Your task to perform on an android device: Go to CNN.com Image 0: 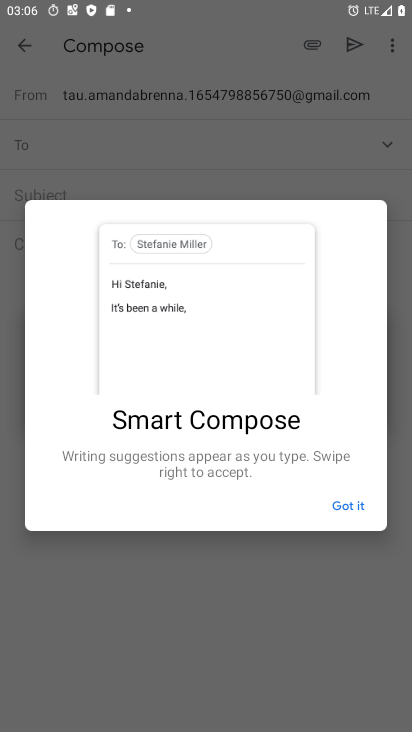
Step 0: press home button
Your task to perform on an android device: Go to CNN.com Image 1: 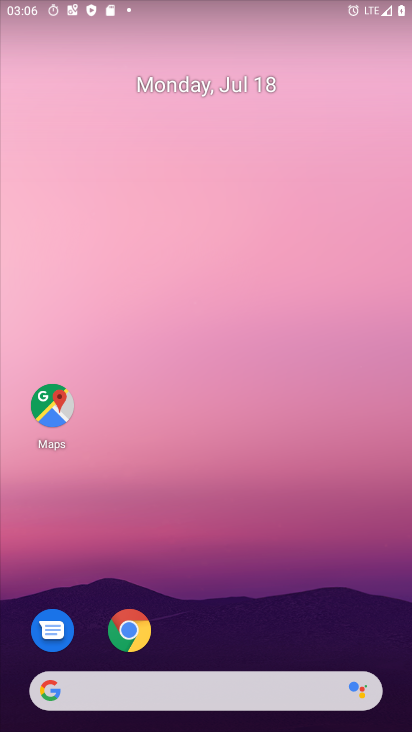
Step 1: click (205, 683)
Your task to perform on an android device: Go to CNN.com Image 2: 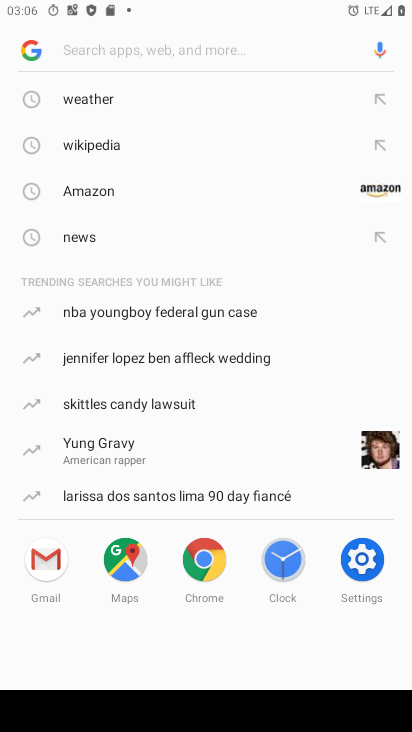
Step 2: type "cnn.com"
Your task to perform on an android device: Go to CNN.com Image 3: 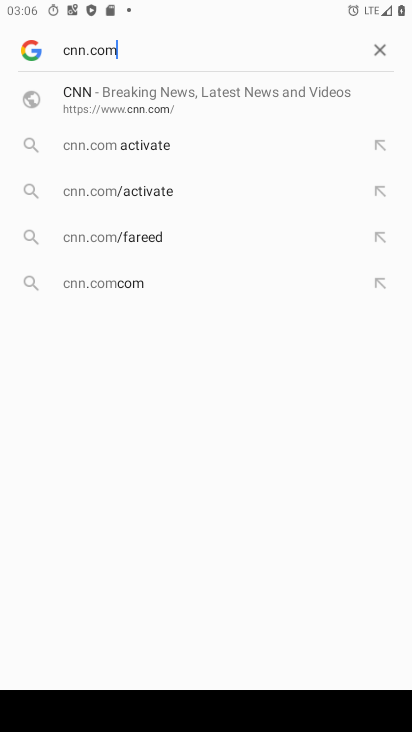
Step 3: click (173, 85)
Your task to perform on an android device: Go to CNN.com Image 4: 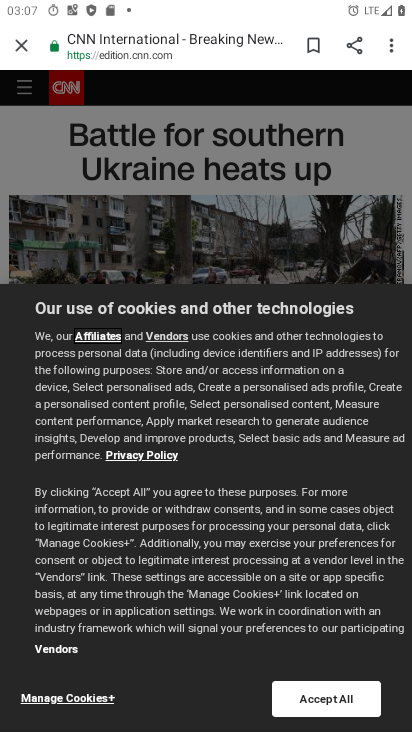
Step 4: task complete